Your task to perform on an android device: check android version Image 0: 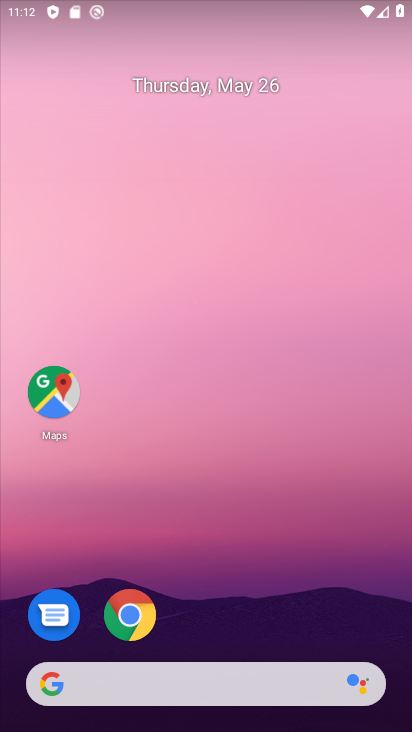
Step 0: drag from (226, 634) to (189, 149)
Your task to perform on an android device: check android version Image 1: 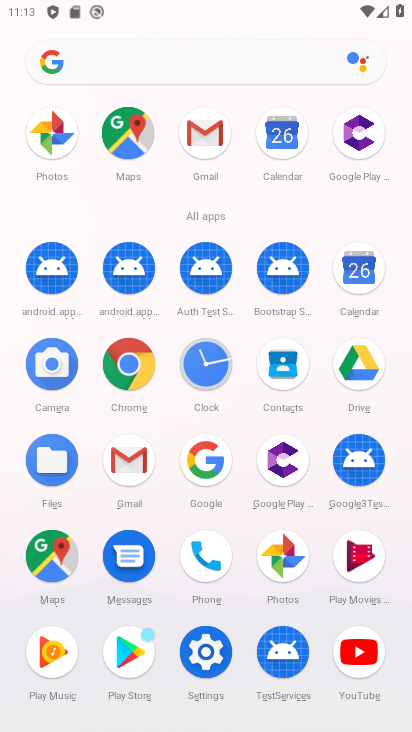
Step 1: click (211, 654)
Your task to perform on an android device: check android version Image 2: 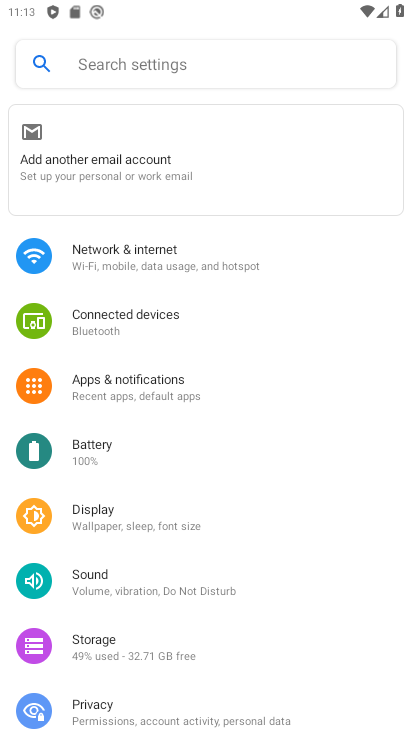
Step 2: drag from (212, 693) to (197, 133)
Your task to perform on an android device: check android version Image 3: 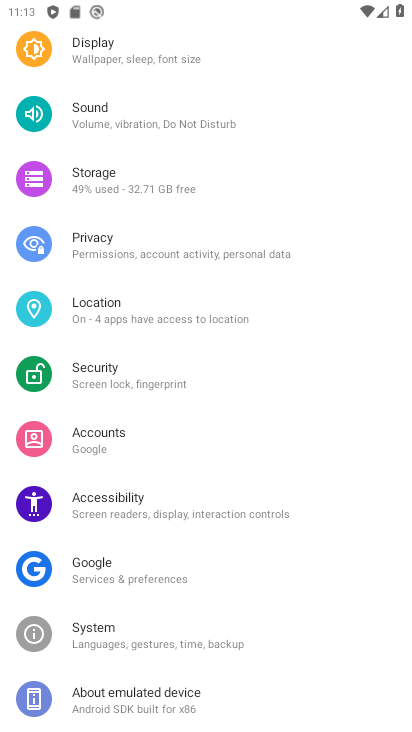
Step 3: click (168, 695)
Your task to perform on an android device: check android version Image 4: 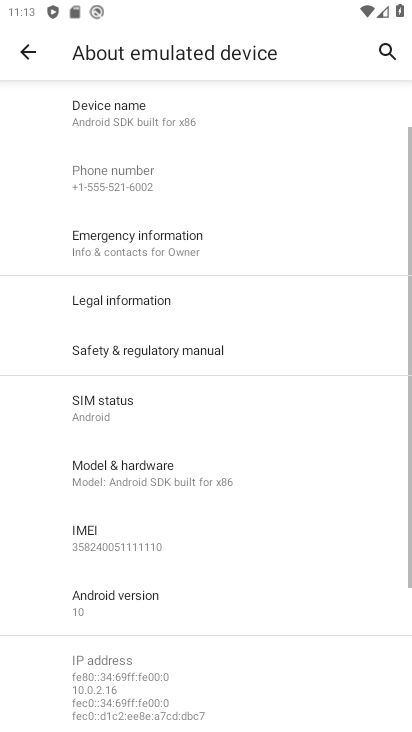
Step 4: click (176, 621)
Your task to perform on an android device: check android version Image 5: 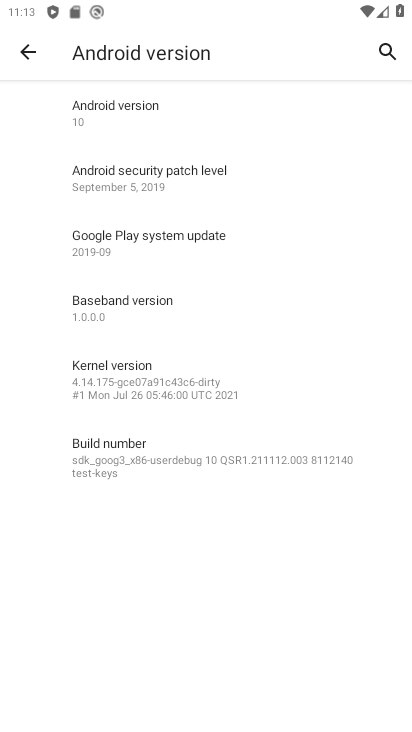
Step 5: task complete